Your task to perform on an android device: Go to privacy settings Image 0: 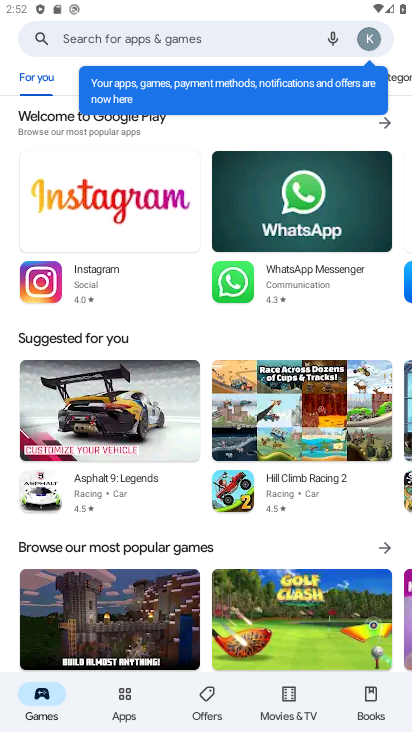
Step 0: press home button
Your task to perform on an android device: Go to privacy settings Image 1: 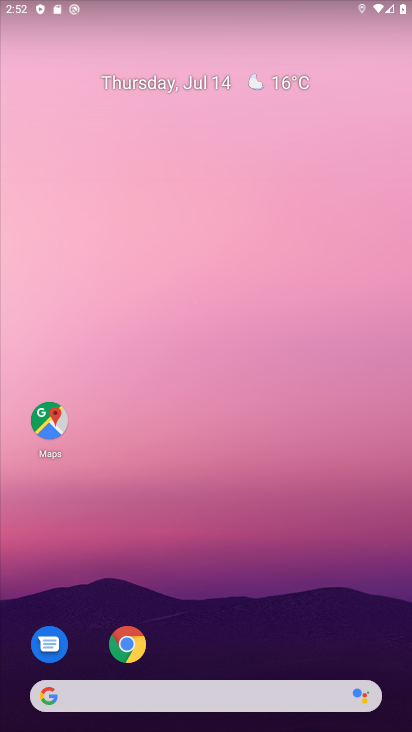
Step 1: drag from (203, 659) to (200, 209)
Your task to perform on an android device: Go to privacy settings Image 2: 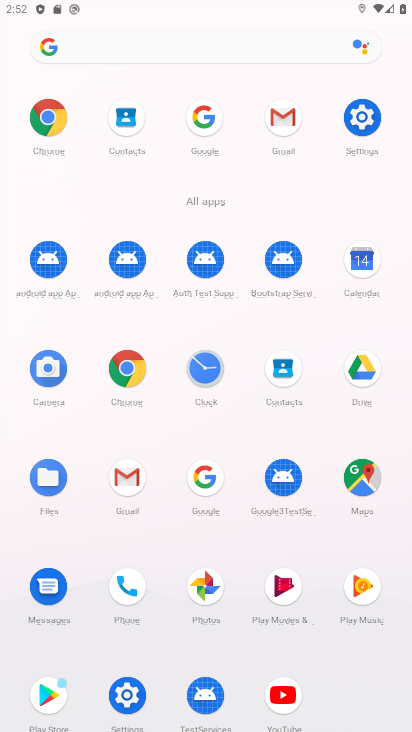
Step 2: click (354, 141)
Your task to perform on an android device: Go to privacy settings Image 3: 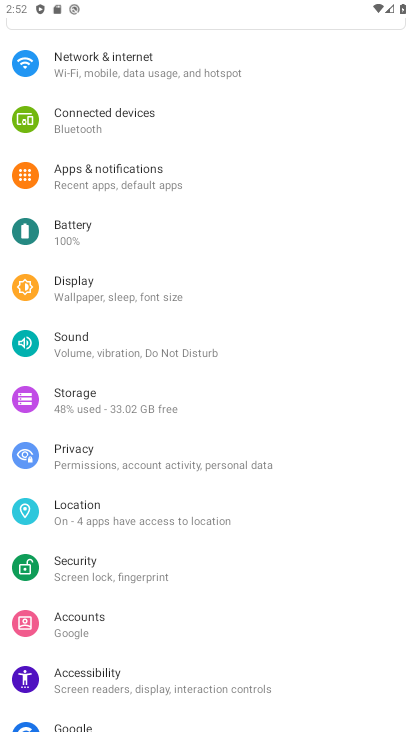
Step 3: click (135, 455)
Your task to perform on an android device: Go to privacy settings Image 4: 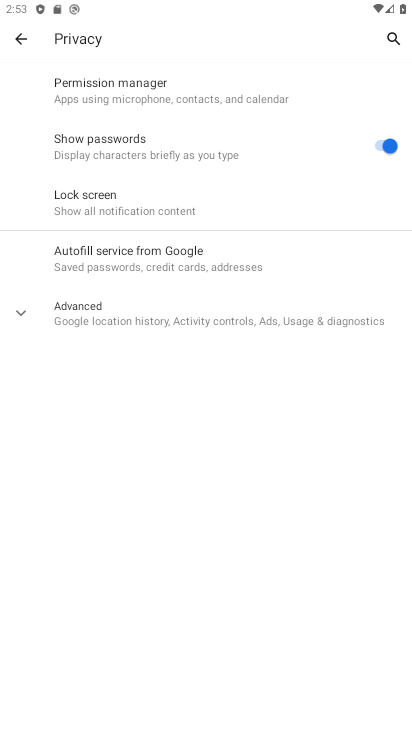
Step 4: task complete